Your task to perform on an android device: Do I have any events this weekend? Image 0: 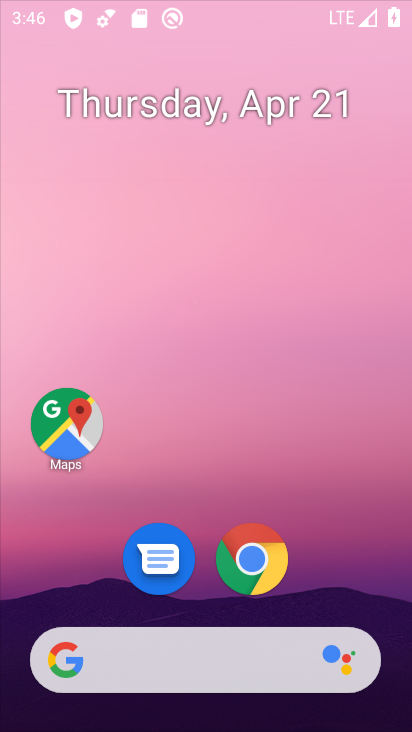
Step 0: click (246, 566)
Your task to perform on an android device: Do I have any events this weekend? Image 1: 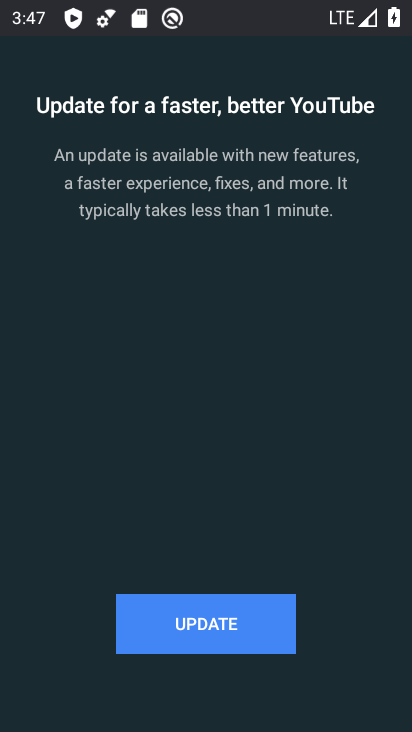
Step 1: press home button
Your task to perform on an android device: Do I have any events this weekend? Image 2: 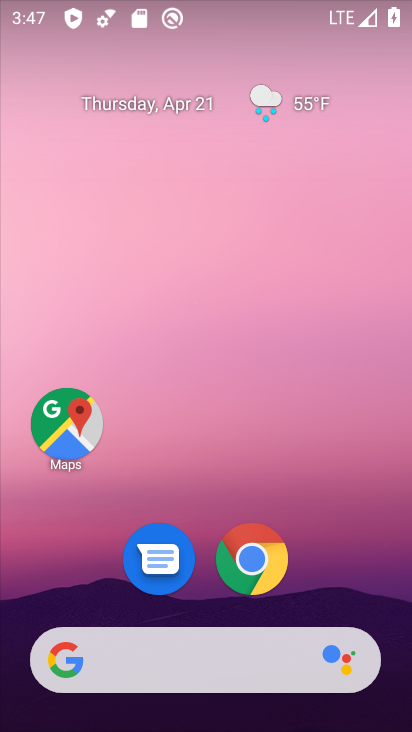
Step 2: drag from (260, 408) to (260, 282)
Your task to perform on an android device: Do I have any events this weekend? Image 3: 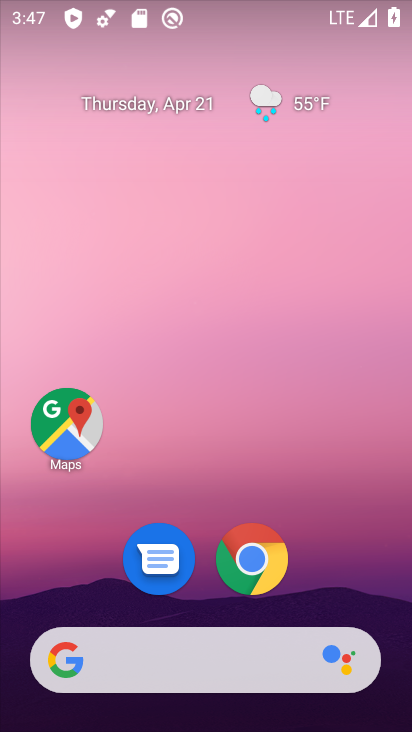
Step 3: drag from (221, 322) to (235, 215)
Your task to perform on an android device: Do I have any events this weekend? Image 4: 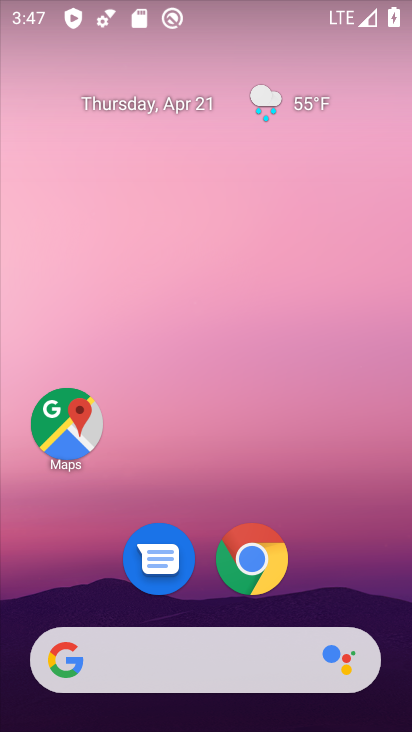
Step 4: drag from (234, 622) to (225, 221)
Your task to perform on an android device: Do I have any events this weekend? Image 5: 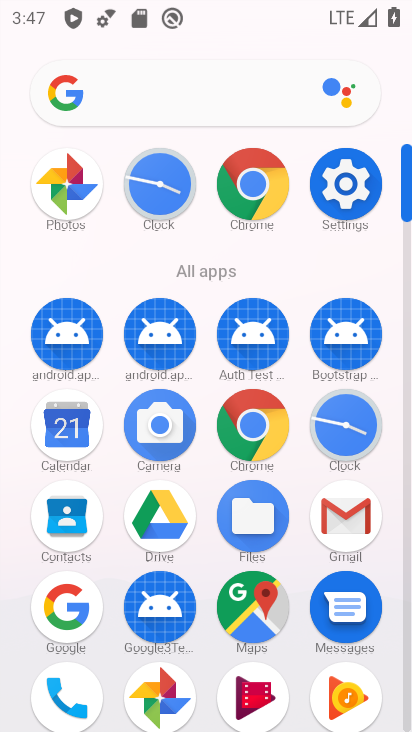
Step 5: click (54, 420)
Your task to perform on an android device: Do I have any events this weekend? Image 6: 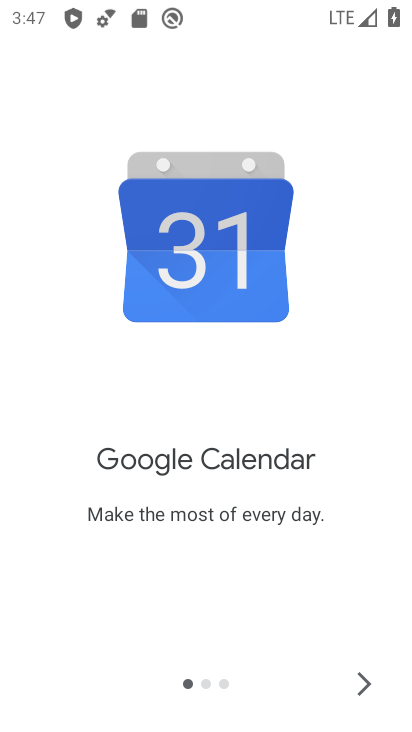
Step 6: click (361, 684)
Your task to perform on an android device: Do I have any events this weekend? Image 7: 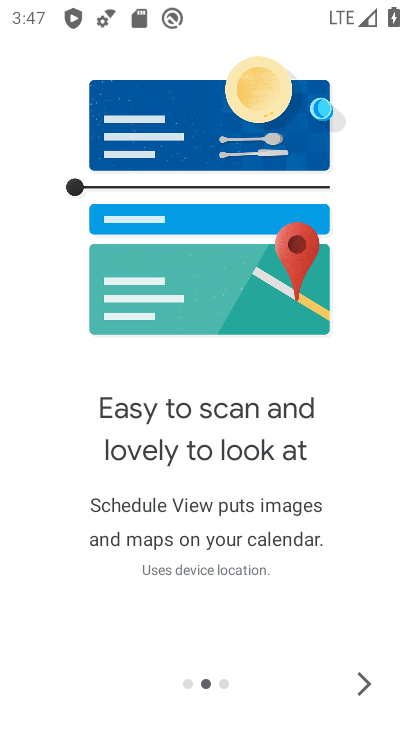
Step 7: click (361, 684)
Your task to perform on an android device: Do I have any events this weekend? Image 8: 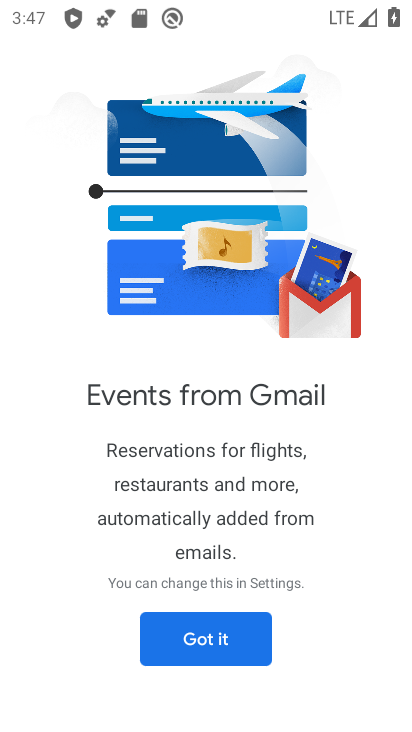
Step 8: click (179, 646)
Your task to perform on an android device: Do I have any events this weekend? Image 9: 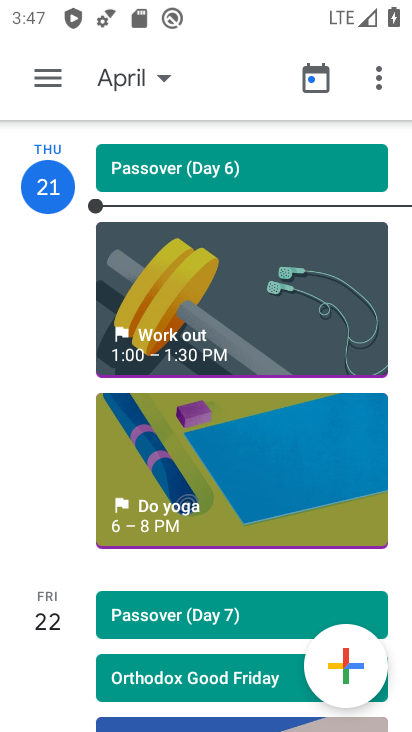
Step 9: click (55, 80)
Your task to perform on an android device: Do I have any events this weekend? Image 10: 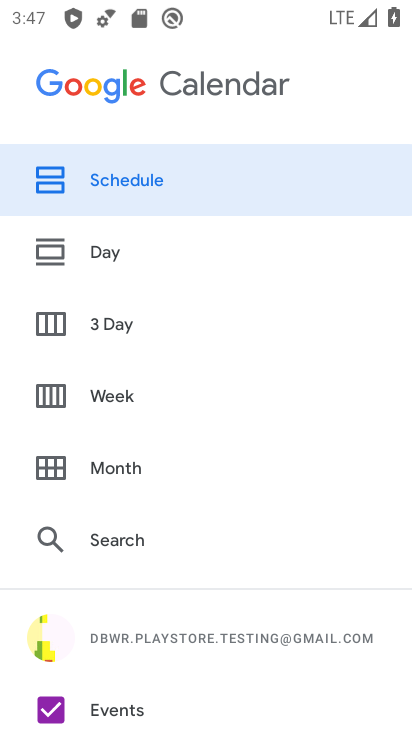
Step 10: click (106, 183)
Your task to perform on an android device: Do I have any events this weekend? Image 11: 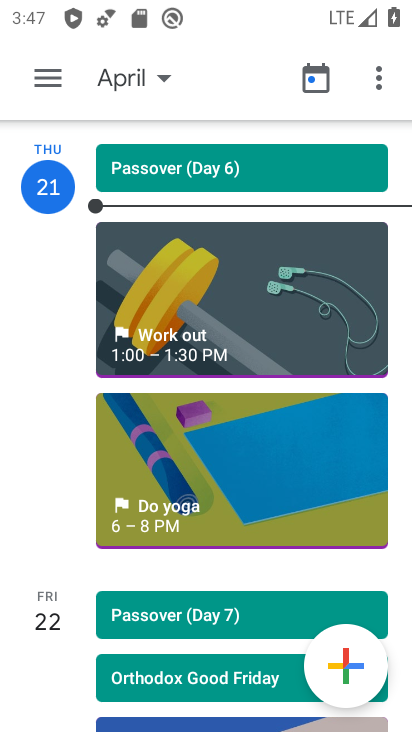
Step 11: task complete